Your task to perform on an android device: Open calendar and show me the third week of next month Image 0: 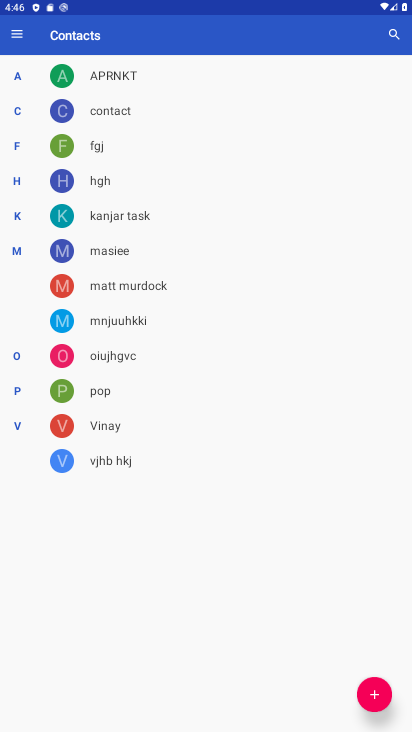
Step 0: click (271, 634)
Your task to perform on an android device: Open calendar and show me the third week of next month Image 1: 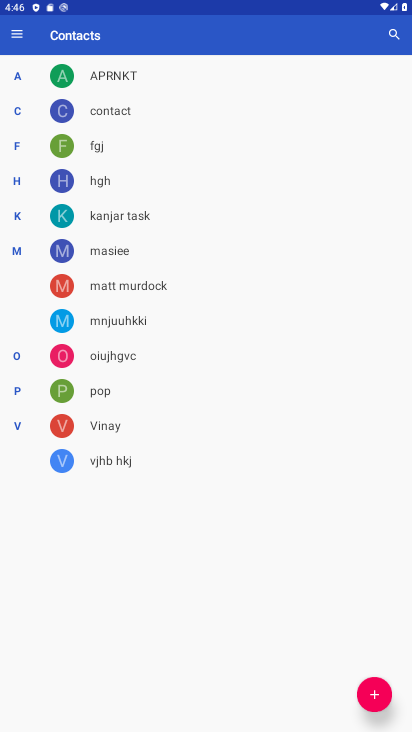
Step 1: press home button
Your task to perform on an android device: Open calendar and show me the third week of next month Image 2: 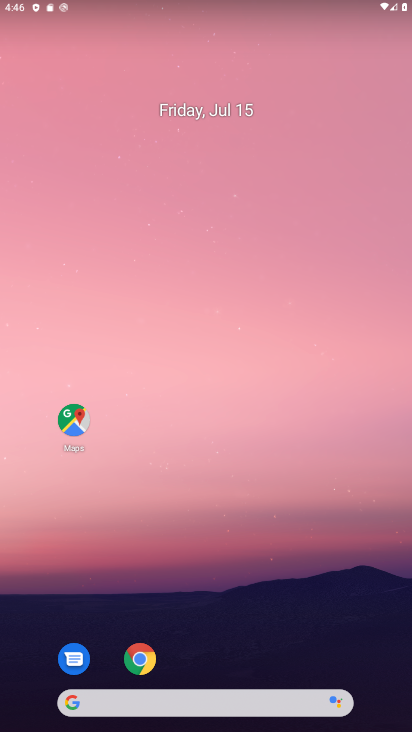
Step 2: drag from (259, 631) to (211, 0)
Your task to perform on an android device: Open calendar and show me the third week of next month Image 3: 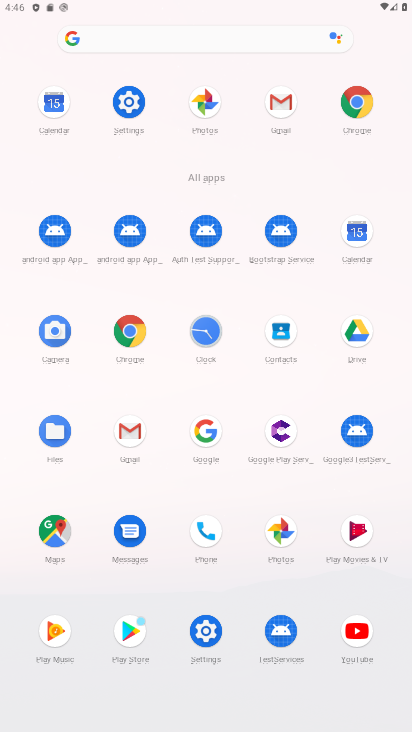
Step 3: click (357, 247)
Your task to perform on an android device: Open calendar and show me the third week of next month Image 4: 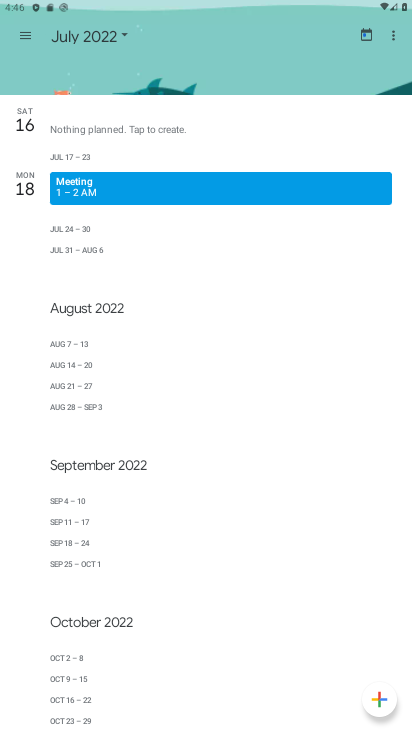
Step 4: click (25, 38)
Your task to perform on an android device: Open calendar and show me the third week of next month Image 5: 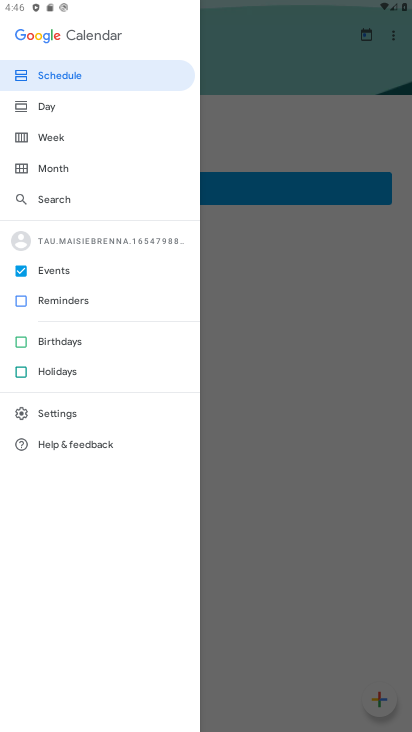
Step 5: click (85, 144)
Your task to perform on an android device: Open calendar and show me the third week of next month Image 6: 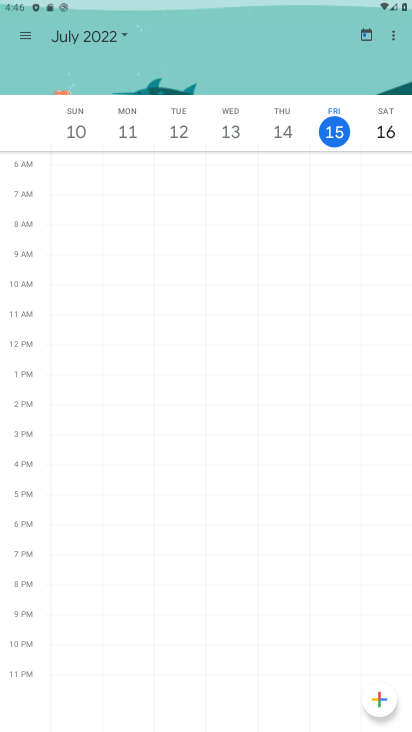
Step 6: click (122, 38)
Your task to perform on an android device: Open calendar and show me the third week of next month Image 7: 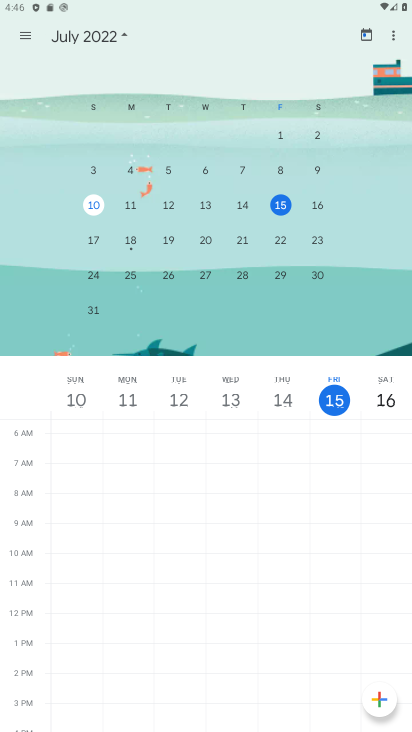
Step 7: drag from (348, 216) to (55, 241)
Your task to perform on an android device: Open calendar and show me the third week of next month Image 8: 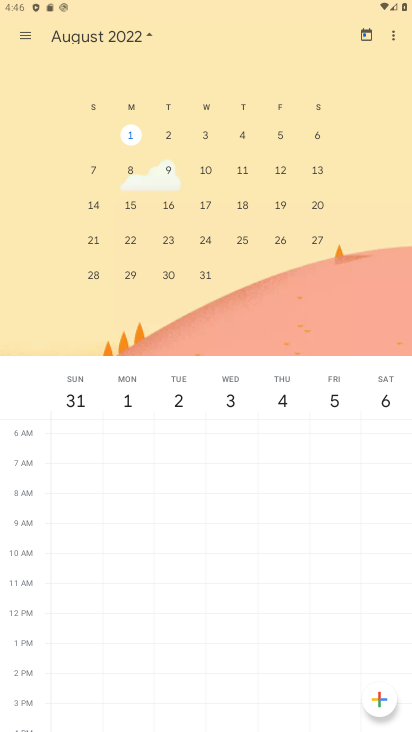
Step 8: click (242, 202)
Your task to perform on an android device: Open calendar and show me the third week of next month Image 9: 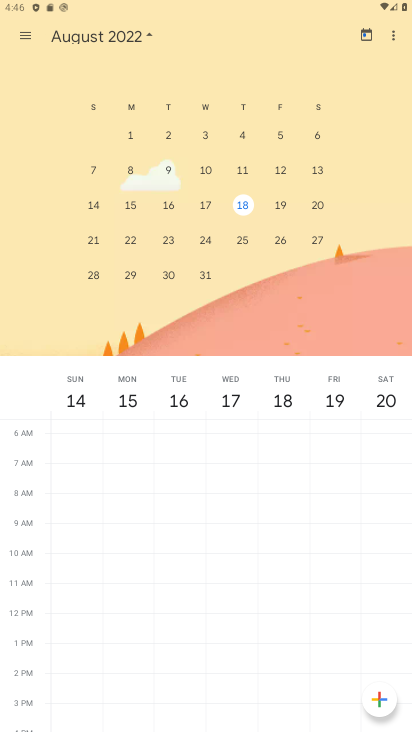
Step 9: task complete